Your task to perform on an android device: Open the calendar app, open the side menu, and click the "Day" option Image 0: 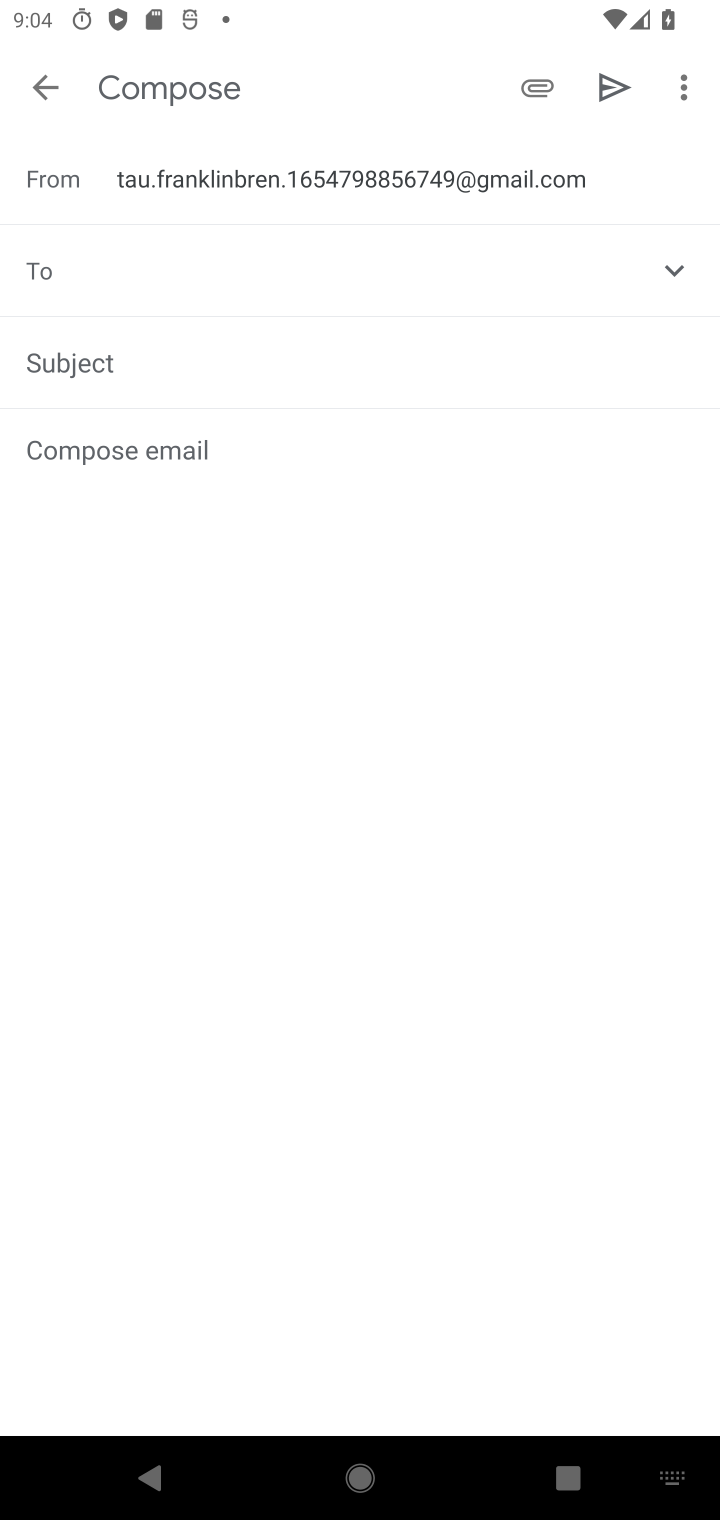
Step 0: press home button
Your task to perform on an android device: Open the calendar app, open the side menu, and click the "Day" option Image 1: 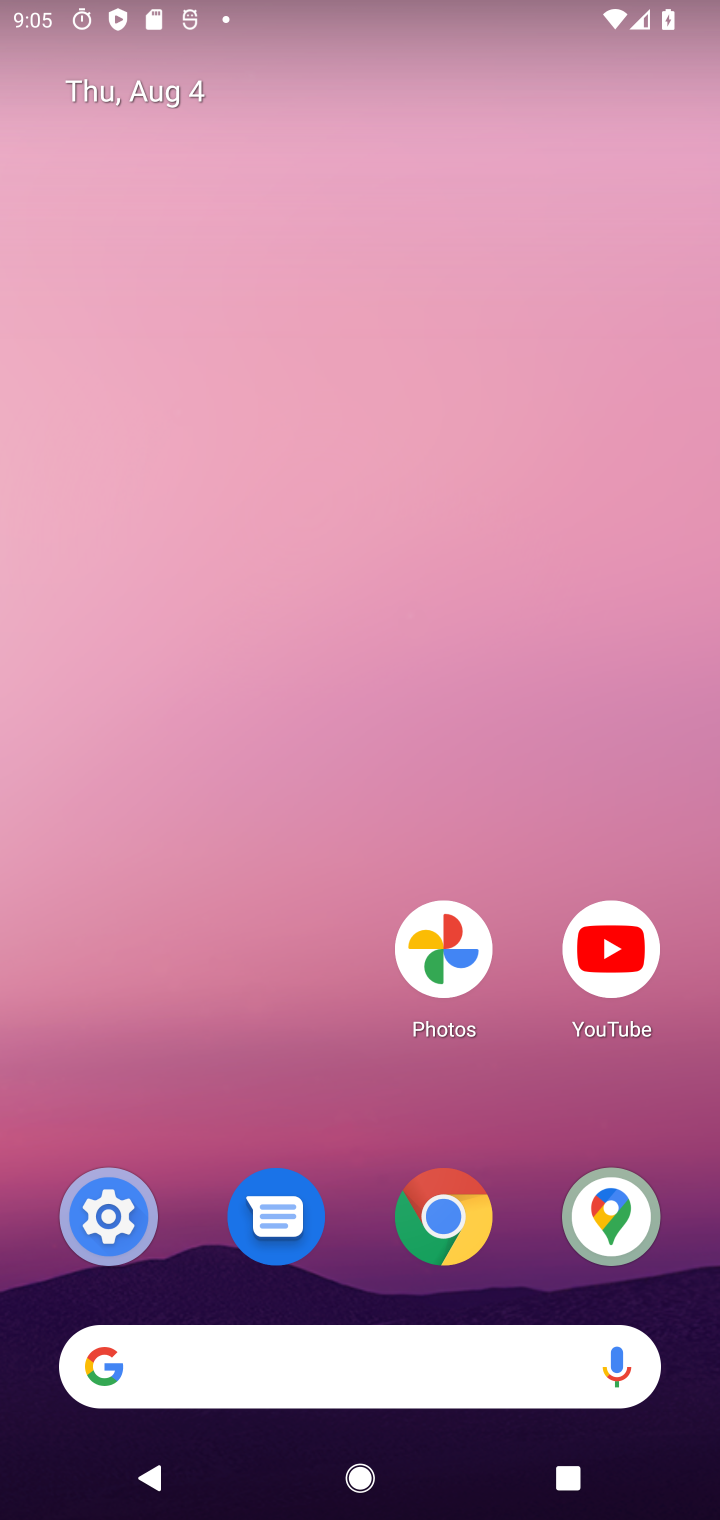
Step 1: drag from (340, 856) to (351, 104)
Your task to perform on an android device: Open the calendar app, open the side menu, and click the "Day" option Image 2: 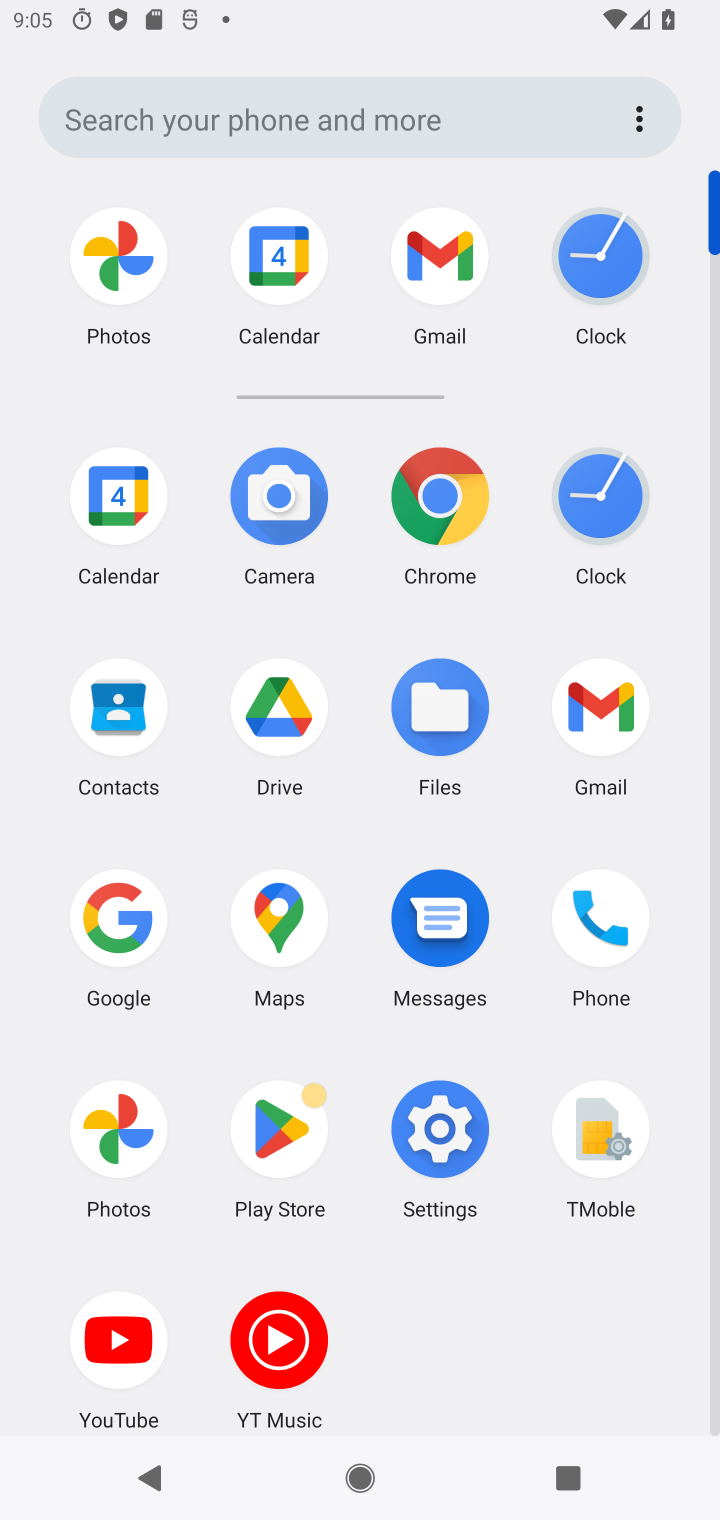
Step 2: click (114, 503)
Your task to perform on an android device: Open the calendar app, open the side menu, and click the "Day" option Image 3: 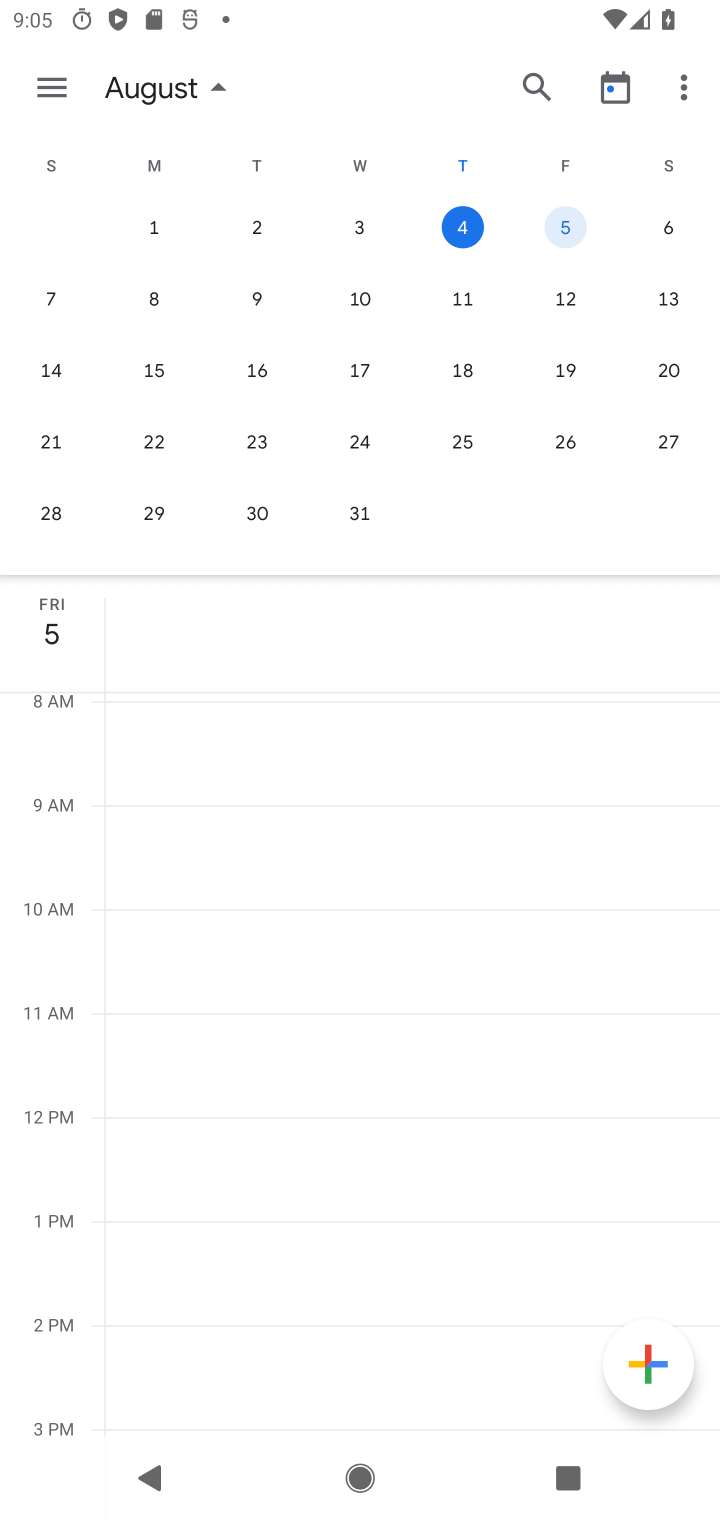
Step 3: click (55, 90)
Your task to perform on an android device: Open the calendar app, open the side menu, and click the "Day" option Image 4: 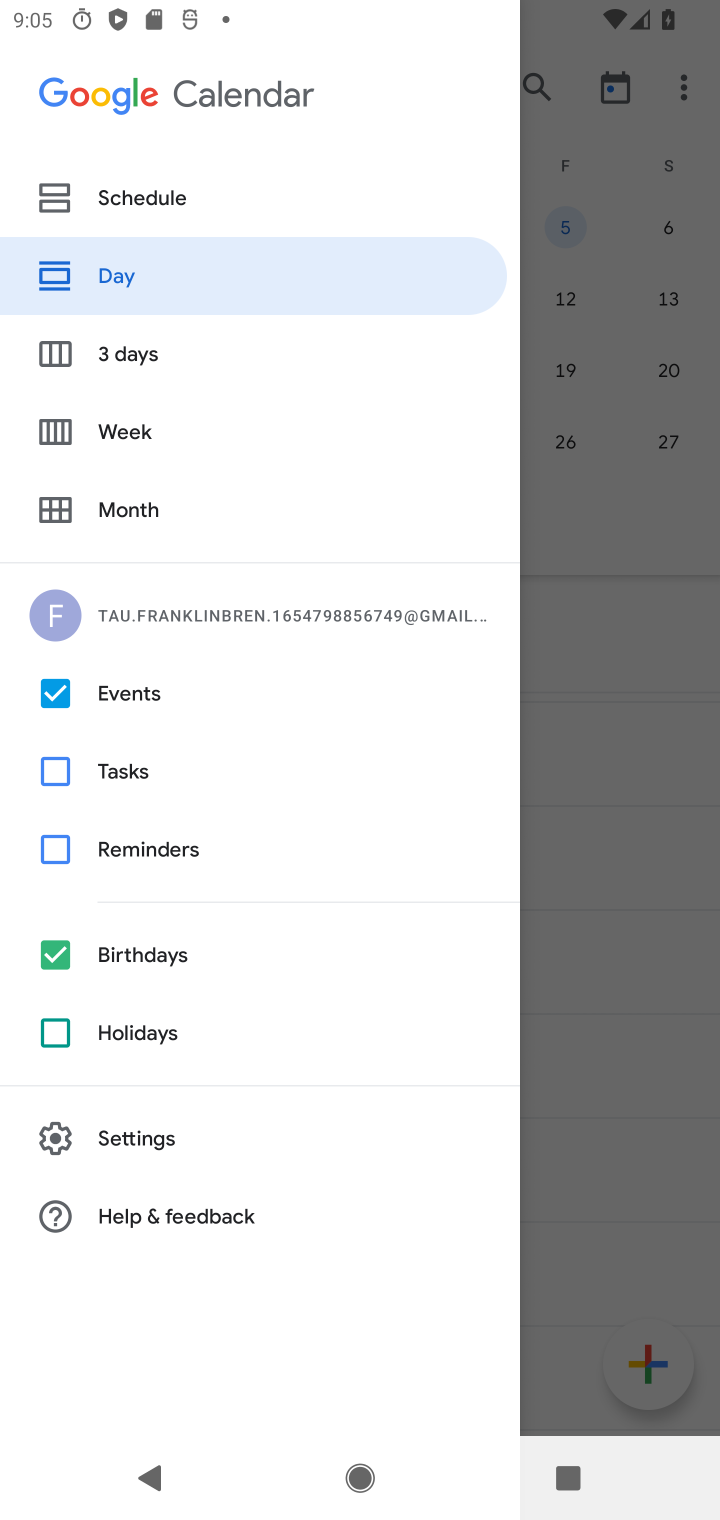
Step 4: click (171, 278)
Your task to perform on an android device: Open the calendar app, open the side menu, and click the "Day" option Image 5: 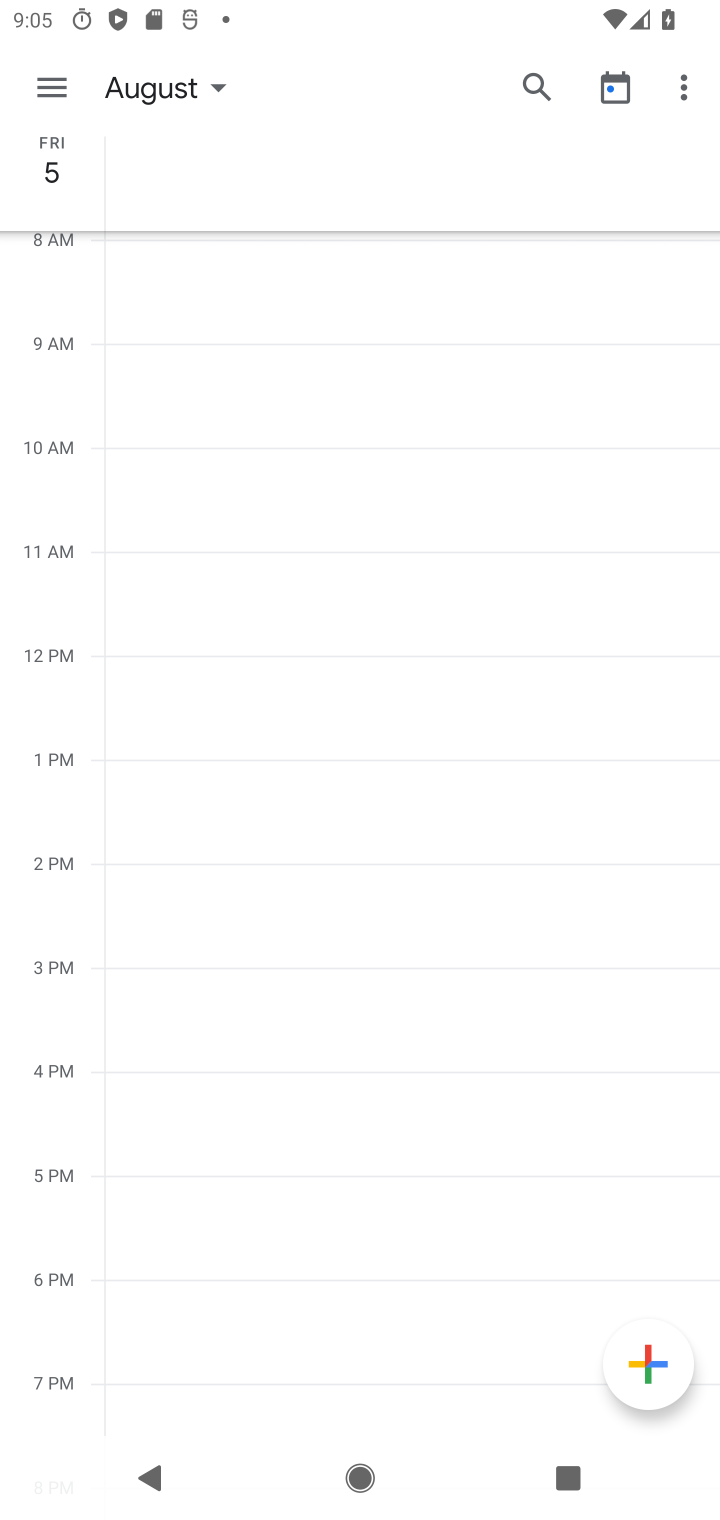
Step 5: task complete